Your task to perform on an android device: check google app version Image 0: 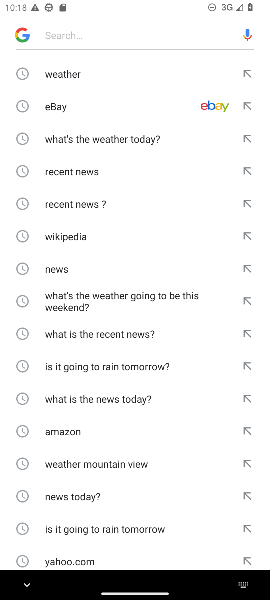
Step 0: click (34, 36)
Your task to perform on an android device: check google app version Image 1: 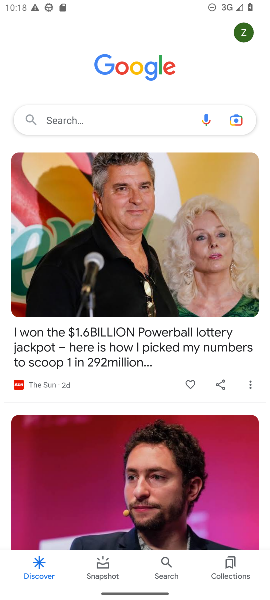
Step 1: click (240, 25)
Your task to perform on an android device: check google app version Image 2: 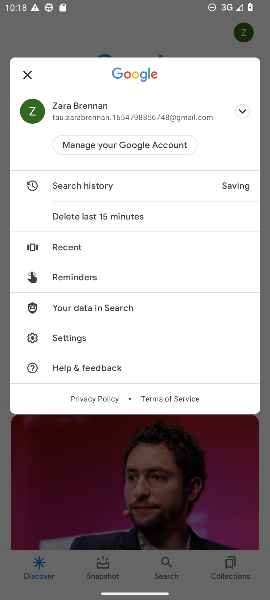
Step 2: click (65, 346)
Your task to perform on an android device: check google app version Image 3: 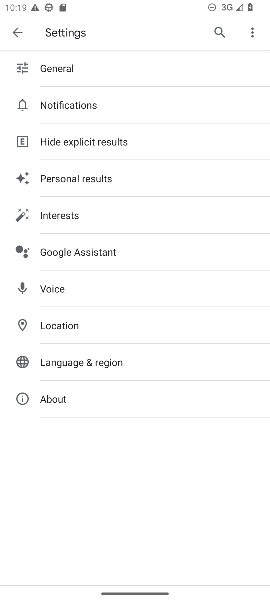
Step 3: click (100, 401)
Your task to perform on an android device: check google app version Image 4: 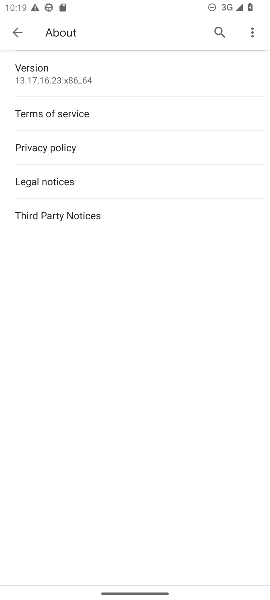
Step 4: task complete